Your task to perform on an android device: toggle javascript in the chrome app Image 0: 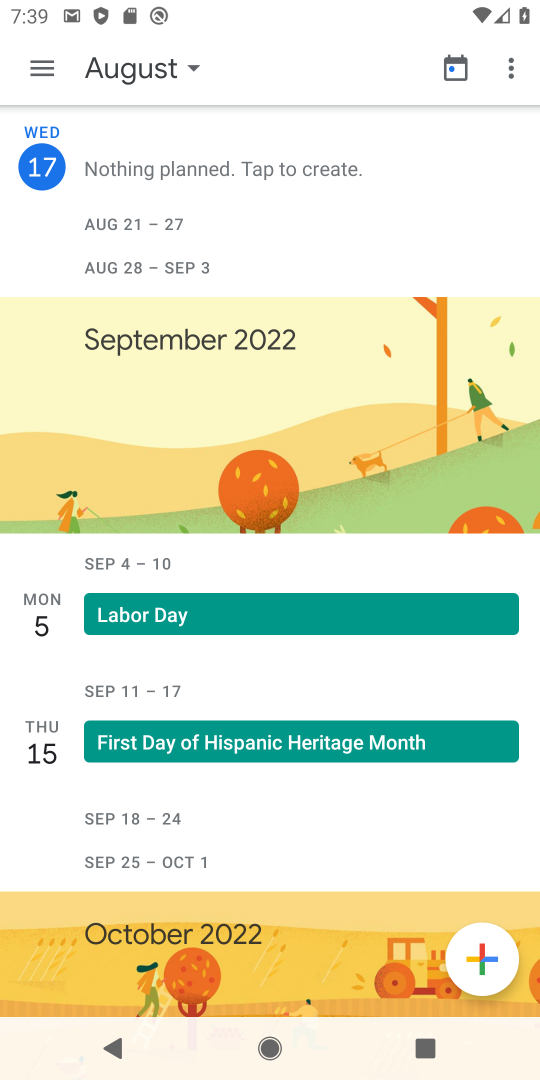
Step 0: press home button
Your task to perform on an android device: toggle javascript in the chrome app Image 1: 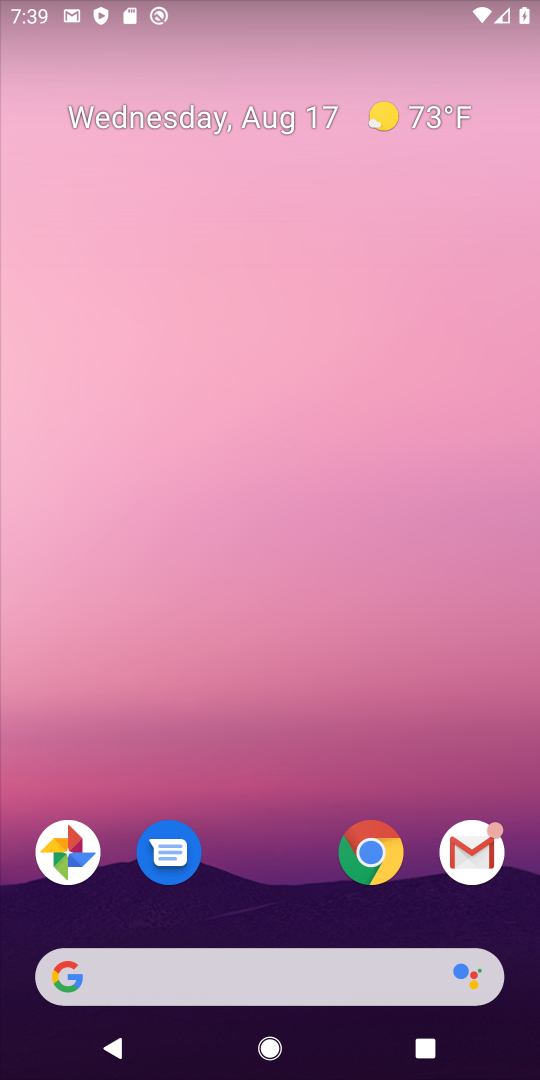
Step 1: click (372, 857)
Your task to perform on an android device: toggle javascript in the chrome app Image 2: 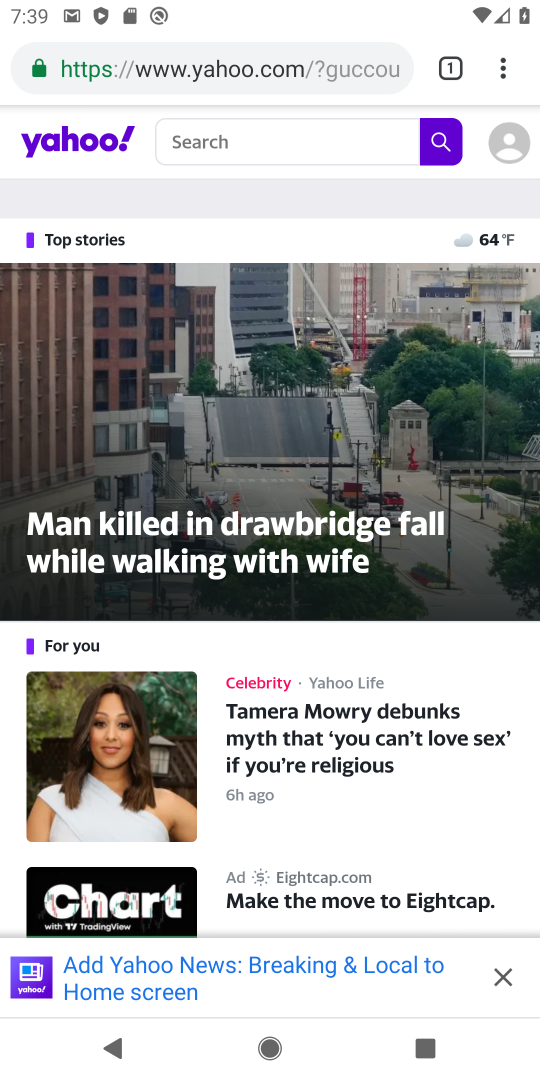
Step 2: click (502, 65)
Your task to perform on an android device: toggle javascript in the chrome app Image 3: 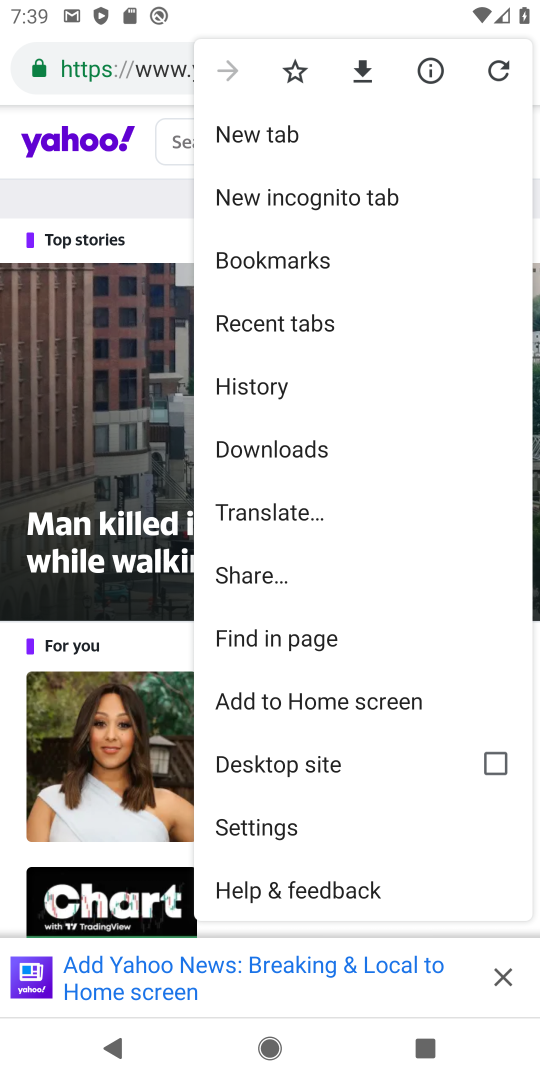
Step 3: click (278, 823)
Your task to perform on an android device: toggle javascript in the chrome app Image 4: 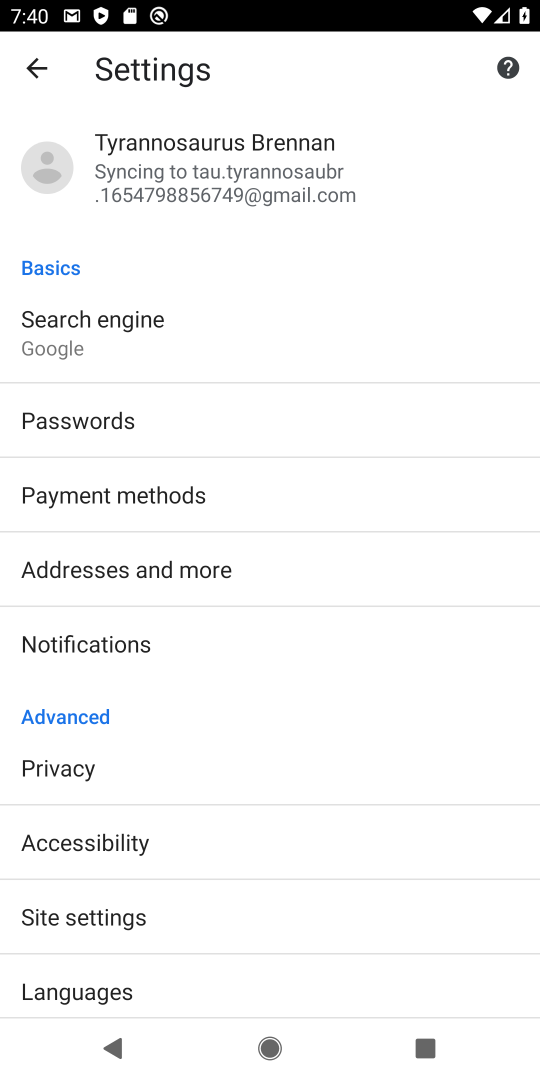
Step 4: click (109, 910)
Your task to perform on an android device: toggle javascript in the chrome app Image 5: 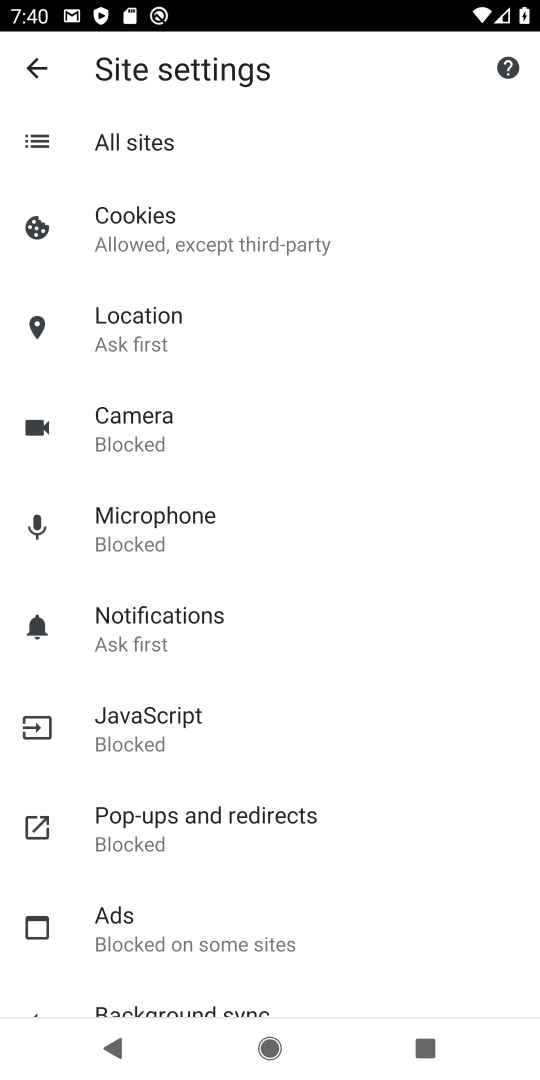
Step 5: click (127, 710)
Your task to perform on an android device: toggle javascript in the chrome app Image 6: 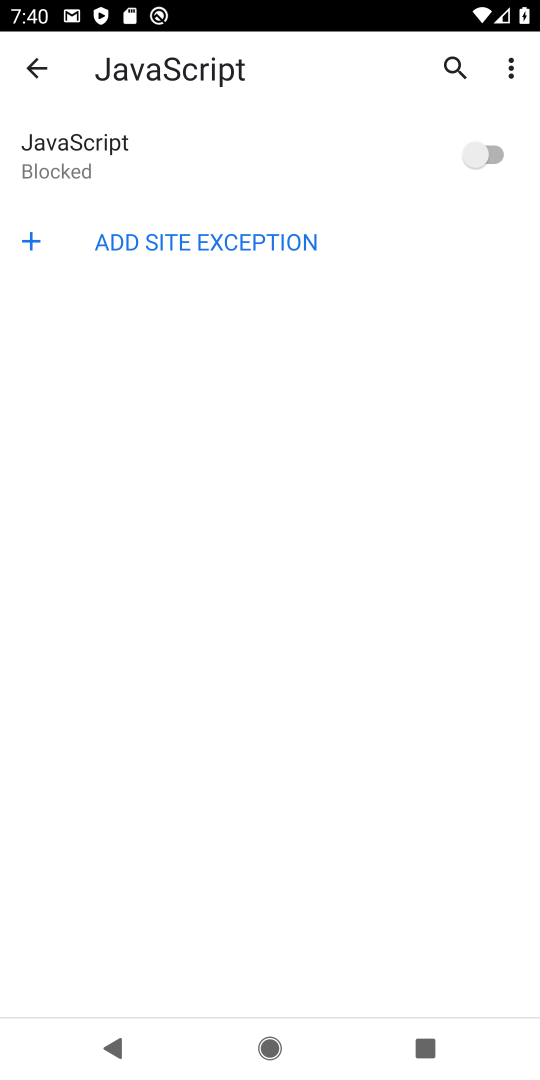
Step 6: click (481, 148)
Your task to perform on an android device: toggle javascript in the chrome app Image 7: 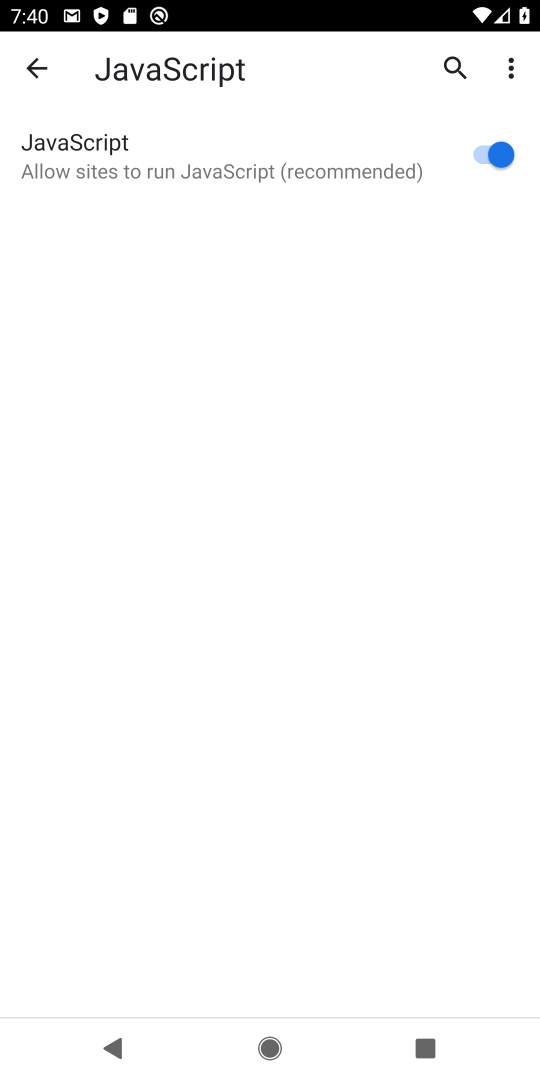
Step 7: task complete